Your task to perform on an android device: stop showing notifications on the lock screen Image 0: 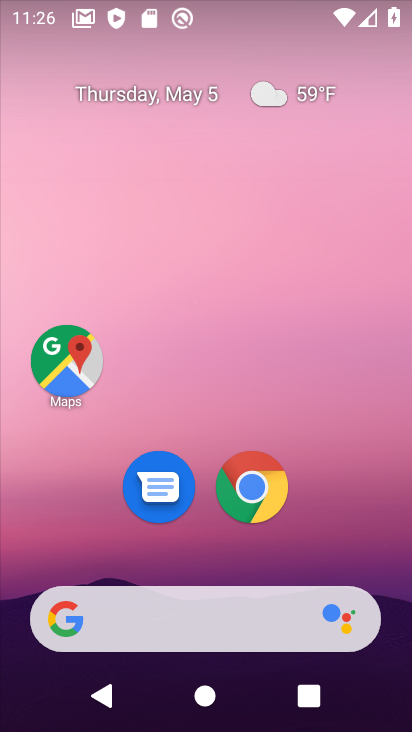
Step 0: drag from (334, 508) to (79, 56)
Your task to perform on an android device: stop showing notifications on the lock screen Image 1: 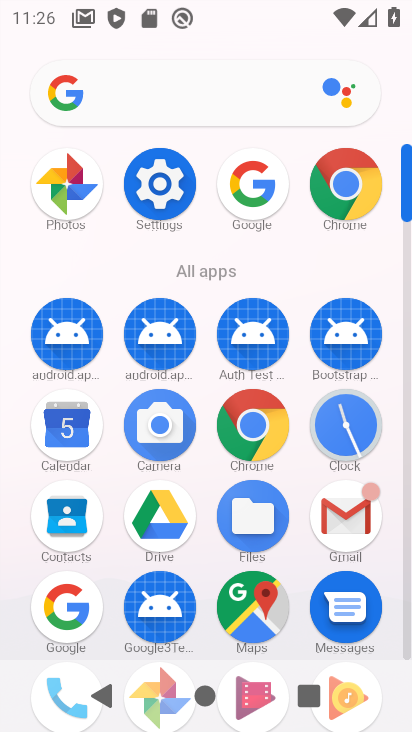
Step 1: click (158, 192)
Your task to perform on an android device: stop showing notifications on the lock screen Image 2: 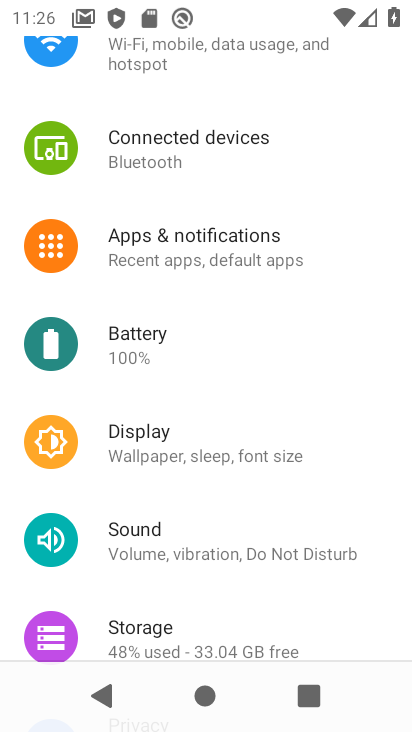
Step 2: click (189, 256)
Your task to perform on an android device: stop showing notifications on the lock screen Image 3: 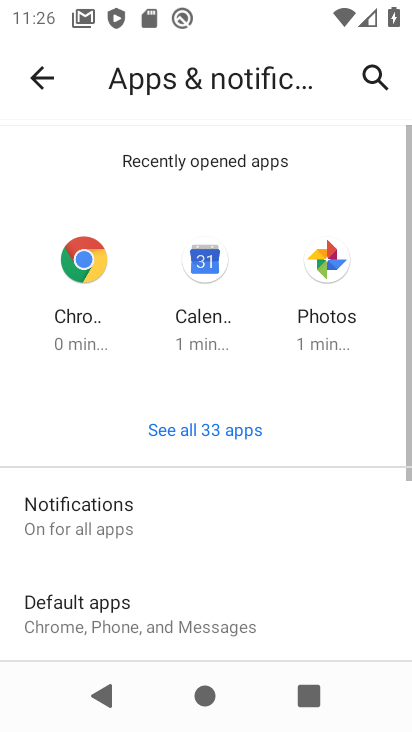
Step 3: click (112, 522)
Your task to perform on an android device: stop showing notifications on the lock screen Image 4: 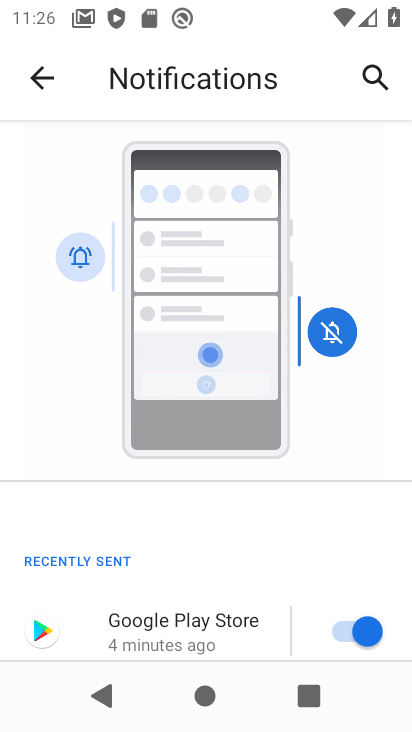
Step 4: drag from (107, 592) to (93, 197)
Your task to perform on an android device: stop showing notifications on the lock screen Image 5: 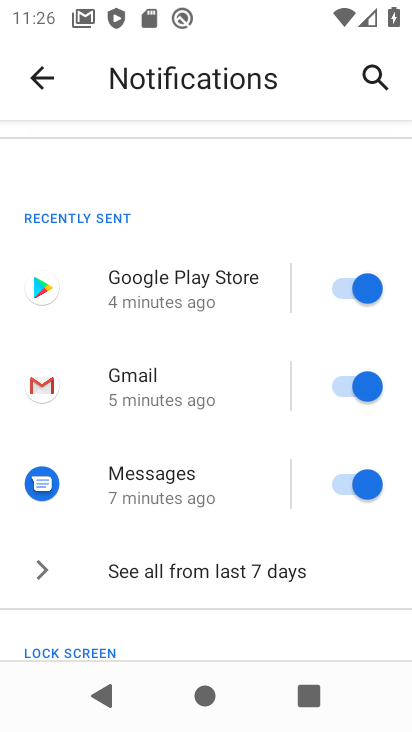
Step 5: drag from (92, 615) to (92, 316)
Your task to perform on an android device: stop showing notifications on the lock screen Image 6: 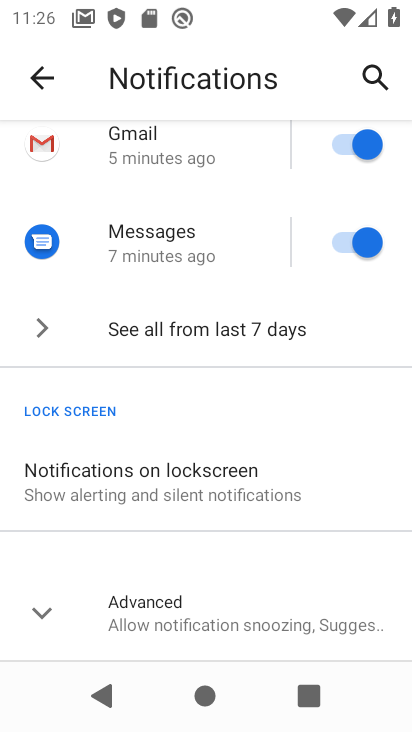
Step 6: click (109, 502)
Your task to perform on an android device: stop showing notifications on the lock screen Image 7: 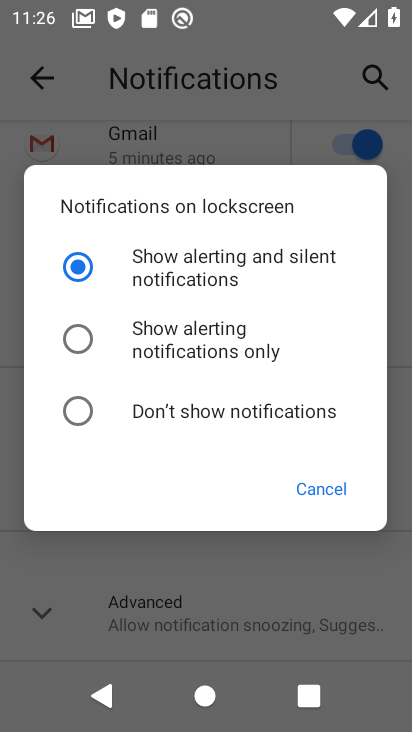
Step 7: click (84, 410)
Your task to perform on an android device: stop showing notifications on the lock screen Image 8: 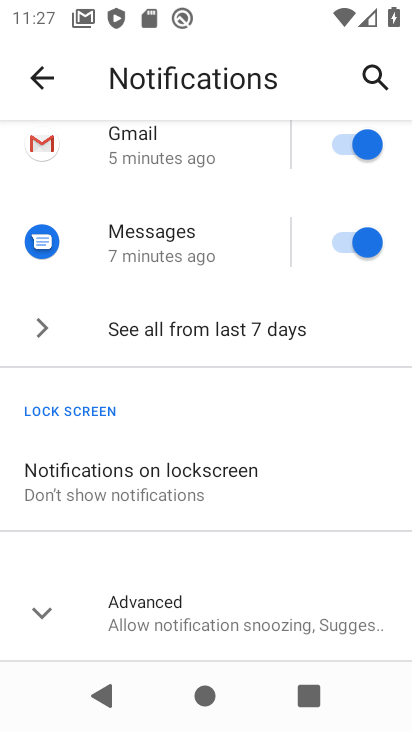
Step 8: task complete